Your task to perform on an android device: delete browsing data in the chrome app Image 0: 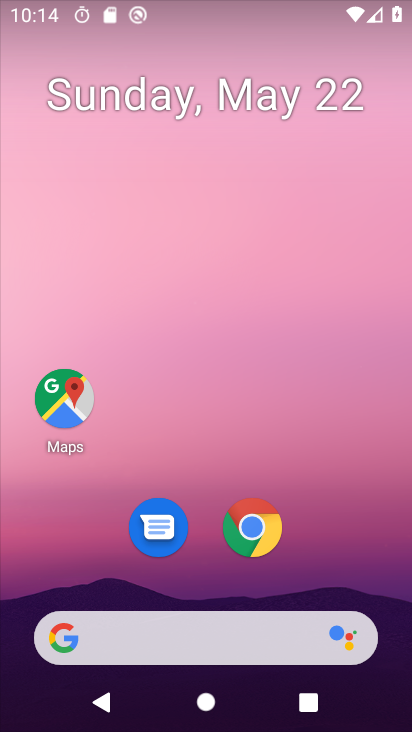
Step 0: drag from (266, 665) to (245, 102)
Your task to perform on an android device: delete browsing data in the chrome app Image 1: 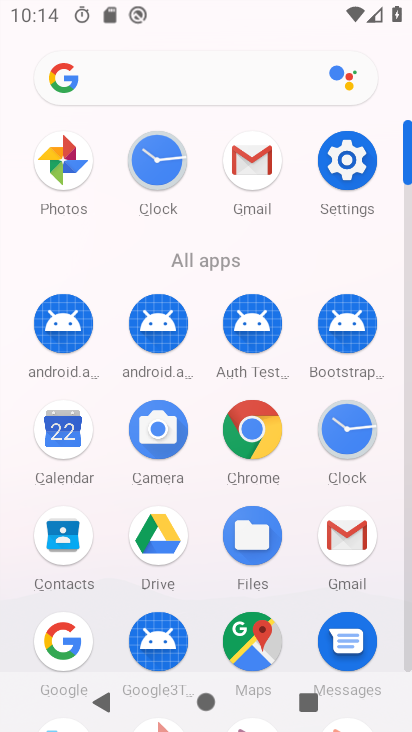
Step 1: click (262, 435)
Your task to perform on an android device: delete browsing data in the chrome app Image 2: 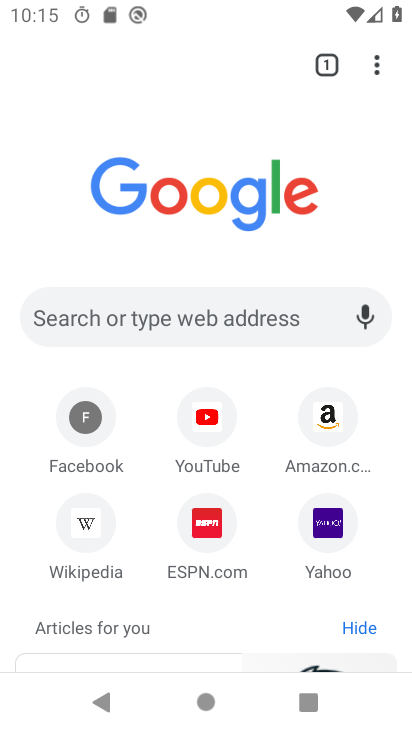
Step 2: click (387, 78)
Your task to perform on an android device: delete browsing data in the chrome app Image 3: 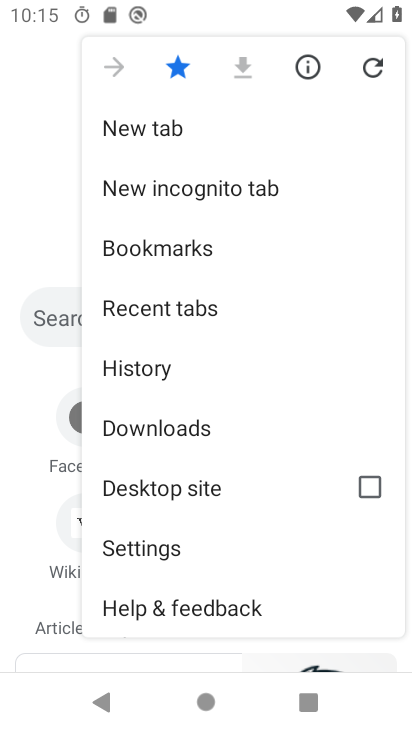
Step 3: drag from (222, 492) to (216, 151)
Your task to perform on an android device: delete browsing data in the chrome app Image 4: 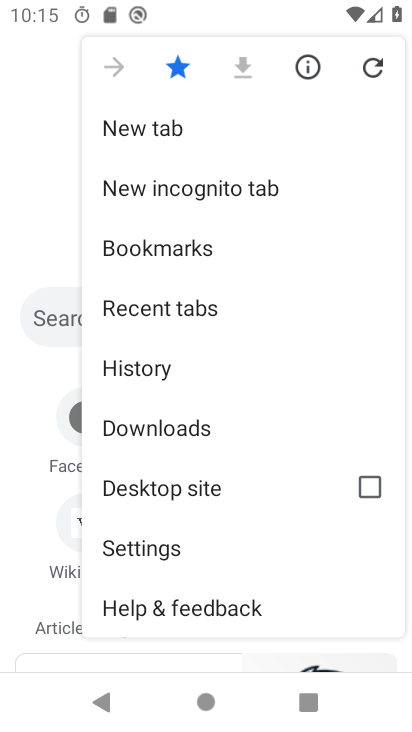
Step 4: click (143, 377)
Your task to perform on an android device: delete browsing data in the chrome app Image 5: 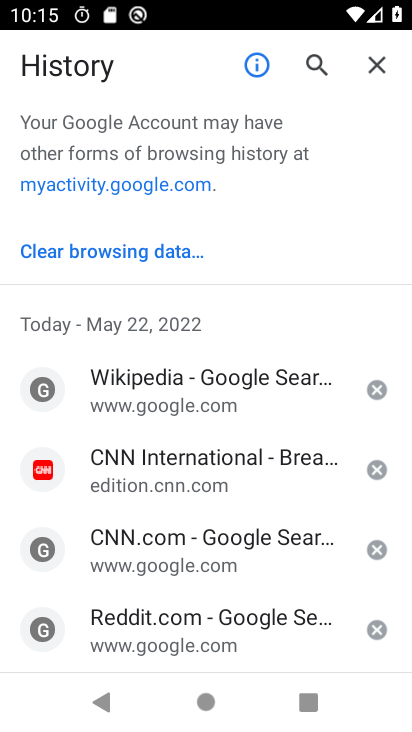
Step 5: click (135, 250)
Your task to perform on an android device: delete browsing data in the chrome app Image 6: 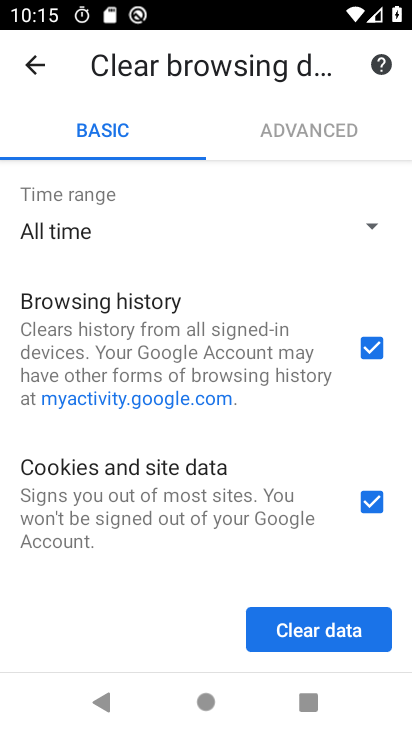
Step 6: click (371, 502)
Your task to perform on an android device: delete browsing data in the chrome app Image 7: 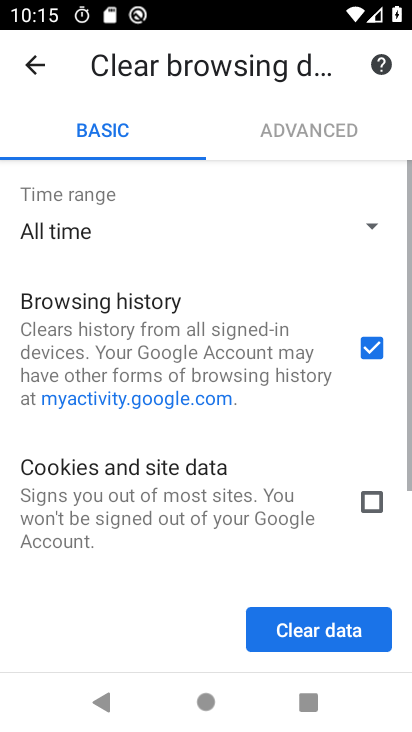
Step 7: click (329, 644)
Your task to perform on an android device: delete browsing data in the chrome app Image 8: 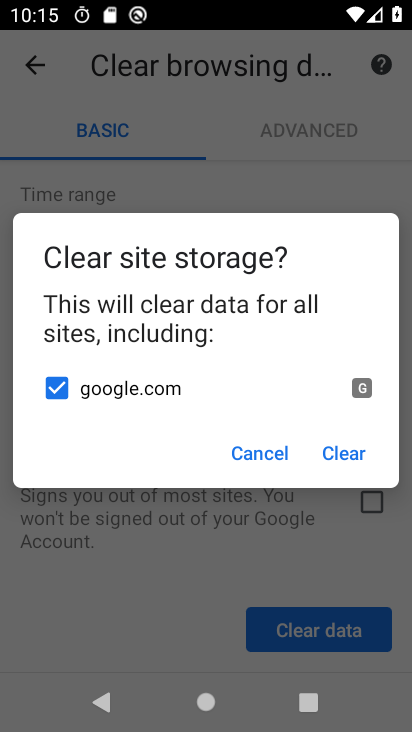
Step 8: click (345, 459)
Your task to perform on an android device: delete browsing data in the chrome app Image 9: 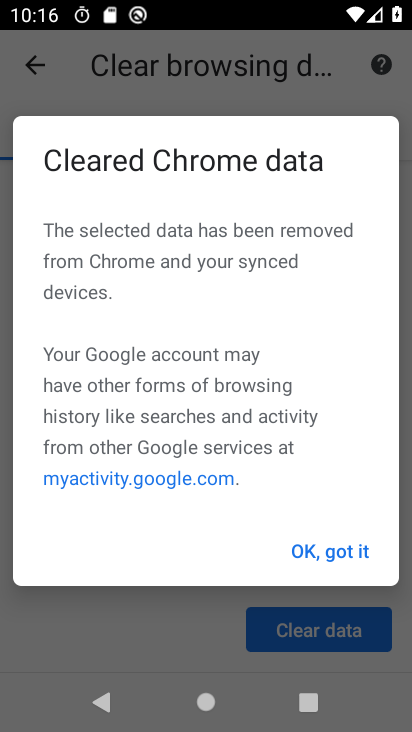
Step 9: click (329, 544)
Your task to perform on an android device: delete browsing data in the chrome app Image 10: 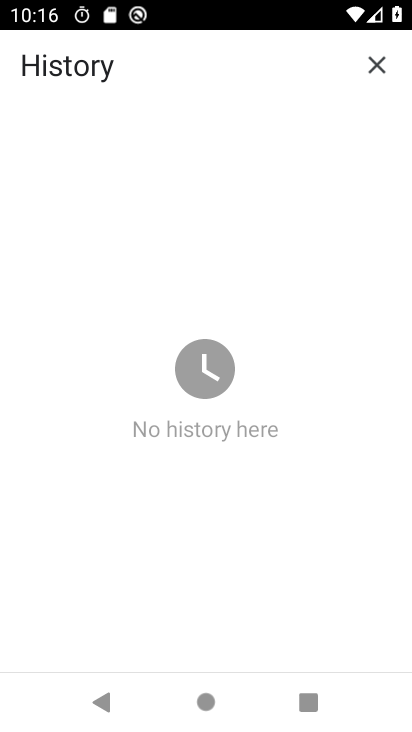
Step 10: task complete